Your task to perform on an android device: Go to ESPN.com Image 0: 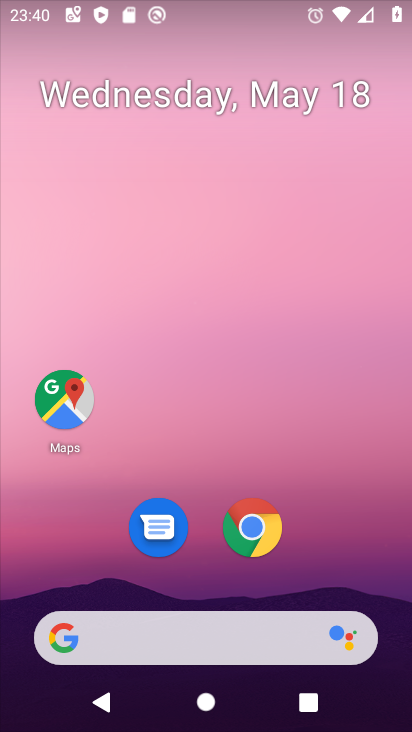
Step 0: click (268, 536)
Your task to perform on an android device: Go to ESPN.com Image 1: 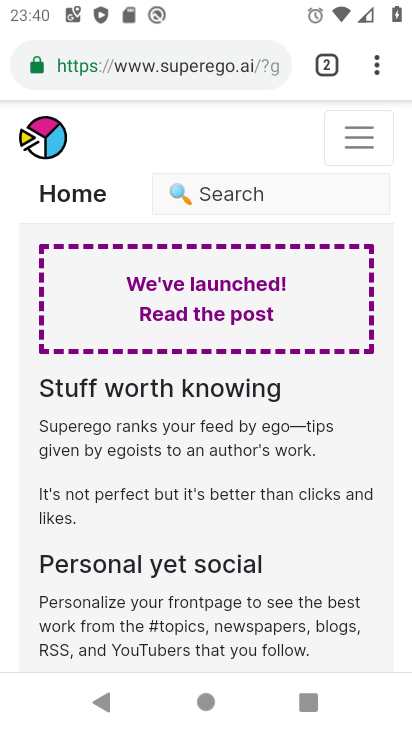
Step 1: click (237, 73)
Your task to perform on an android device: Go to ESPN.com Image 2: 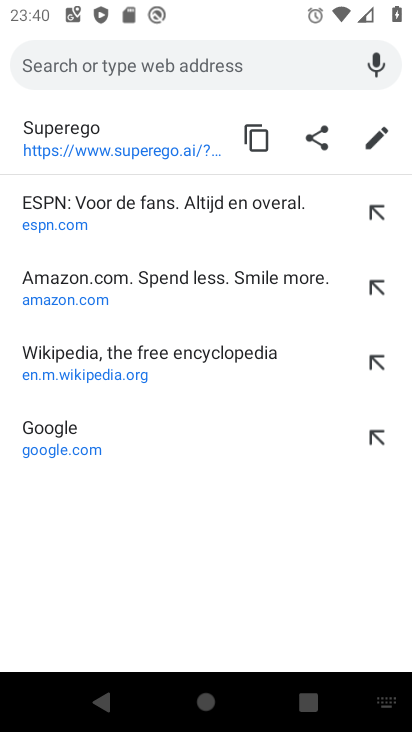
Step 2: click (113, 221)
Your task to perform on an android device: Go to ESPN.com Image 3: 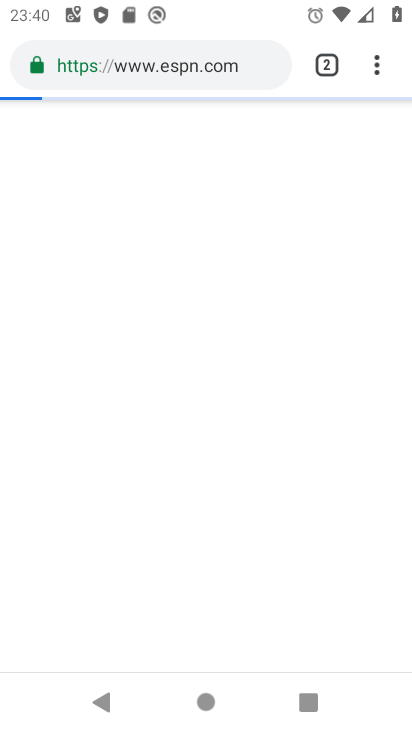
Step 3: task complete